Your task to perform on an android device: toggle location history Image 0: 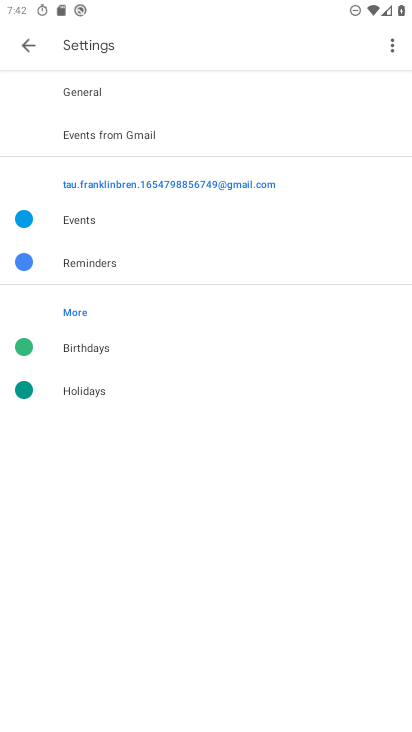
Step 0: press home button
Your task to perform on an android device: toggle location history Image 1: 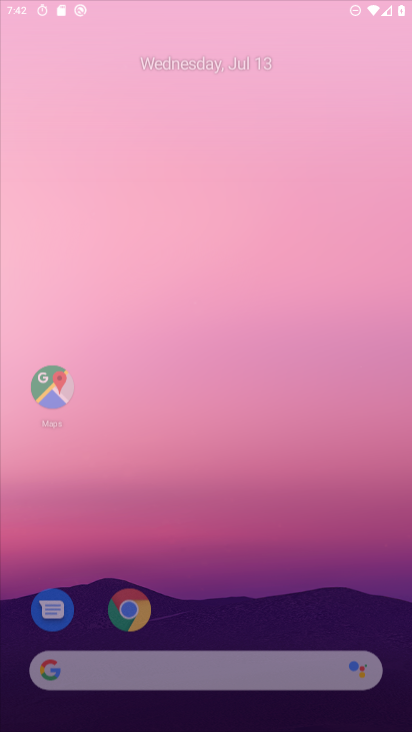
Step 1: drag from (359, 661) to (221, 3)
Your task to perform on an android device: toggle location history Image 2: 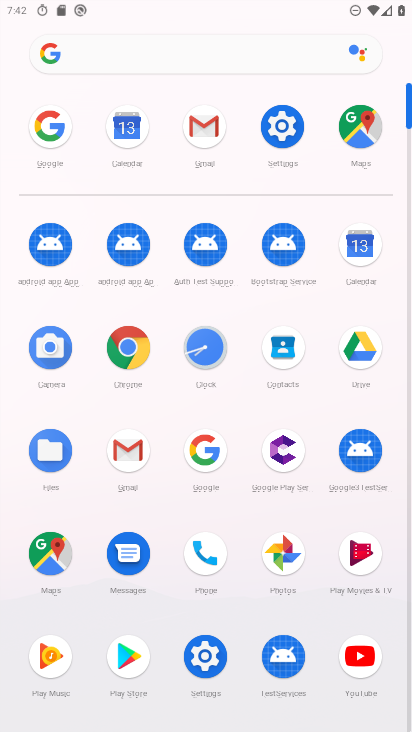
Step 2: click (278, 115)
Your task to perform on an android device: toggle location history Image 3: 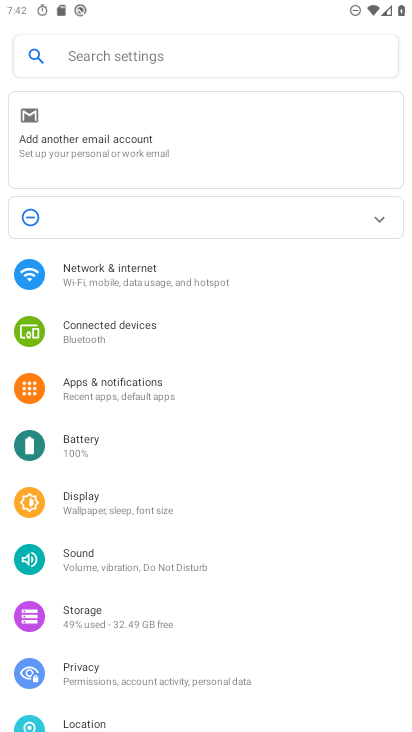
Step 3: click (105, 718)
Your task to perform on an android device: toggle location history Image 4: 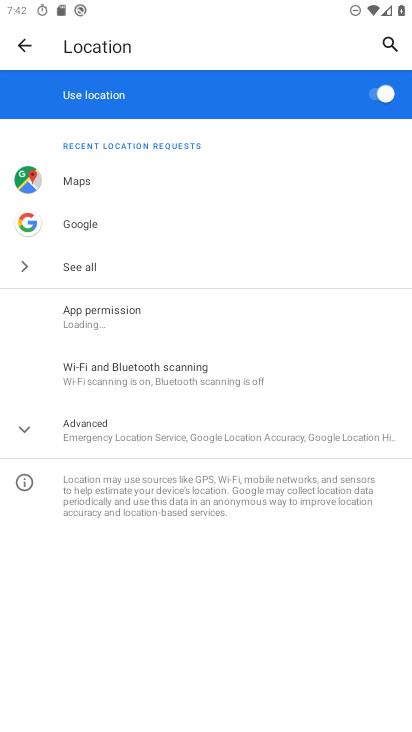
Step 4: click (85, 420)
Your task to perform on an android device: toggle location history Image 5: 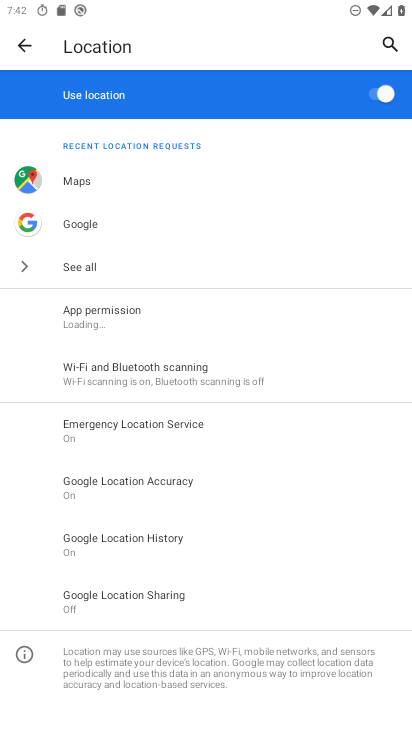
Step 5: click (115, 542)
Your task to perform on an android device: toggle location history Image 6: 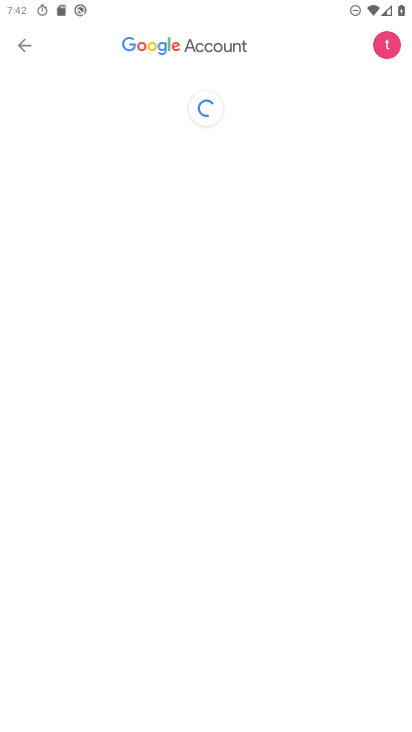
Step 6: click (355, 476)
Your task to perform on an android device: toggle location history Image 7: 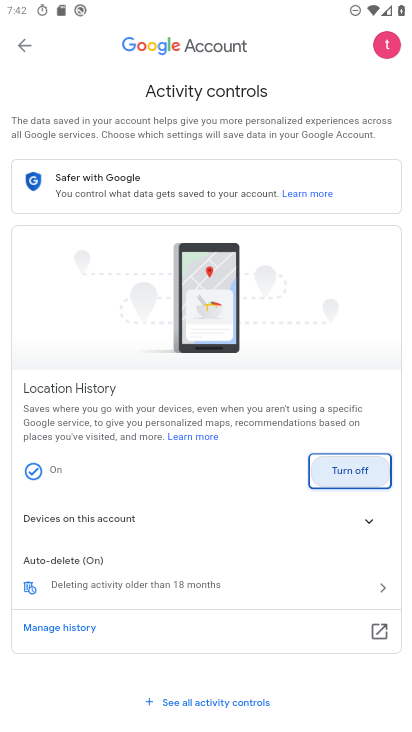
Step 7: click (355, 476)
Your task to perform on an android device: toggle location history Image 8: 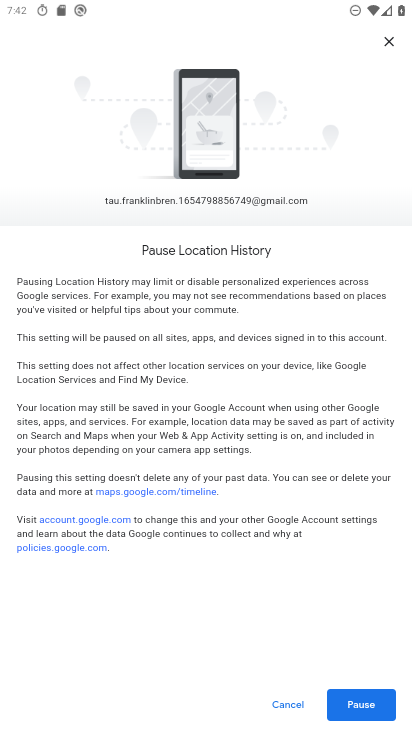
Step 8: task complete